Your task to perform on an android device: turn on javascript in the chrome app Image 0: 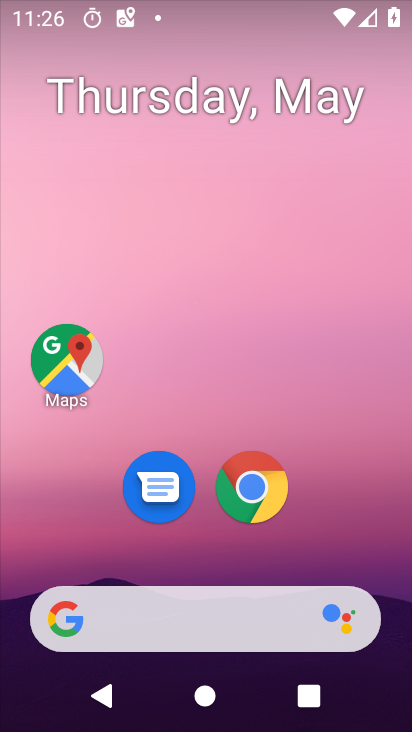
Step 0: click (258, 503)
Your task to perform on an android device: turn on javascript in the chrome app Image 1: 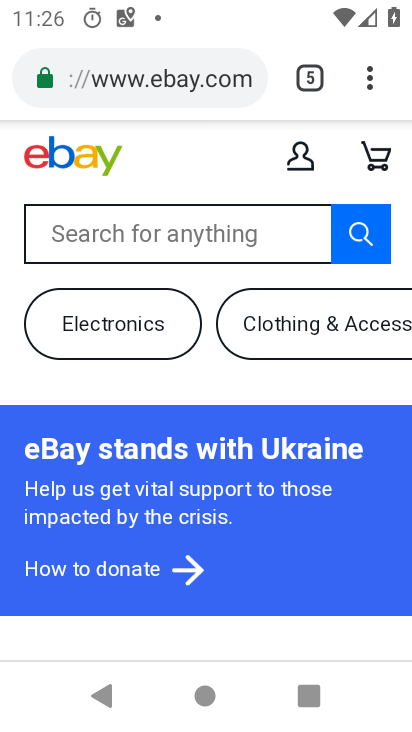
Step 1: click (379, 80)
Your task to perform on an android device: turn on javascript in the chrome app Image 2: 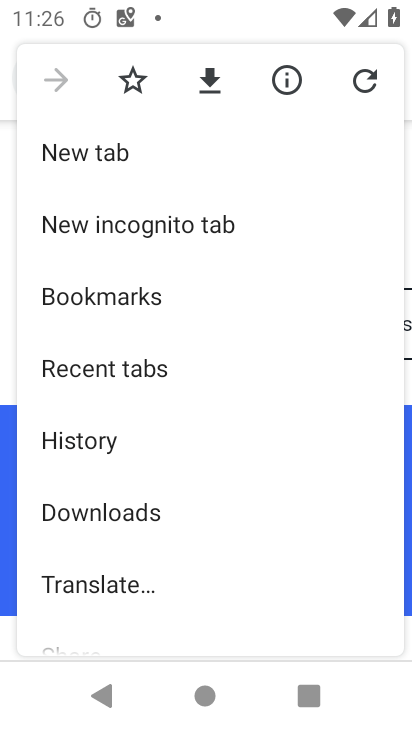
Step 2: drag from (240, 533) to (234, 225)
Your task to perform on an android device: turn on javascript in the chrome app Image 3: 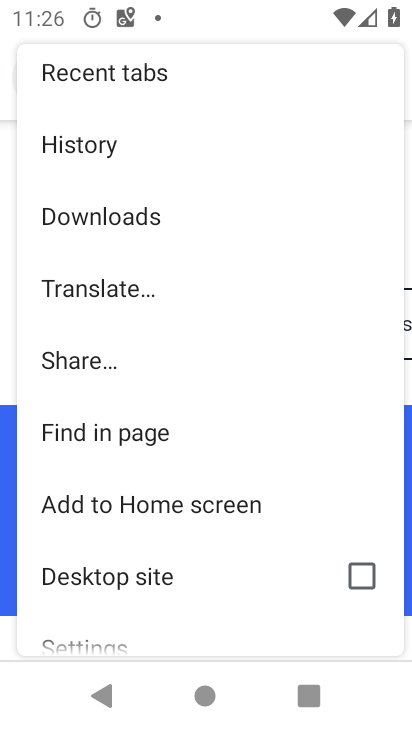
Step 3: drag from (156, 584) to (151, 196)
Your task to perform on an android device: turn on javascript in the chrome app Image 4: 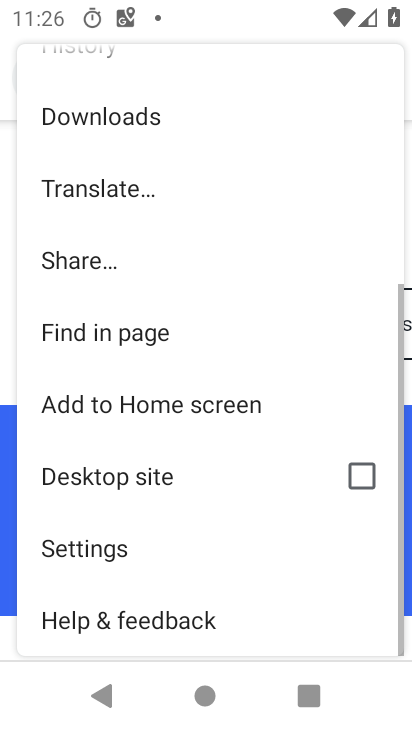
Step 4: click (108, 543)
Your task to perform on an android device: turn on javascript in the chrome app Image 5: 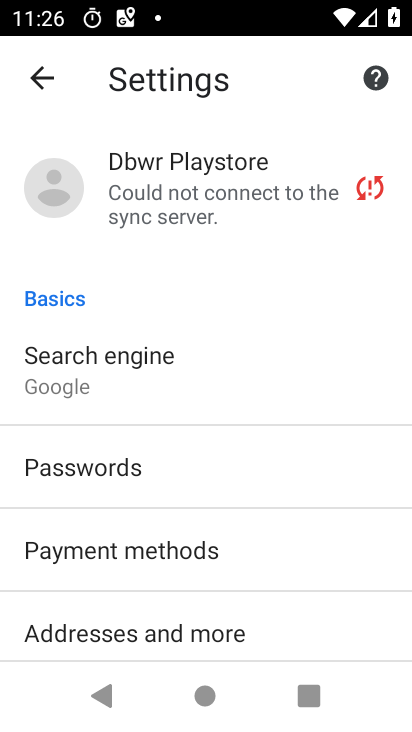
Step 5: drag from (236, 579) to (275, 225)
Your task to perform on an android device: turn on javascript in the chrome app Image 6: 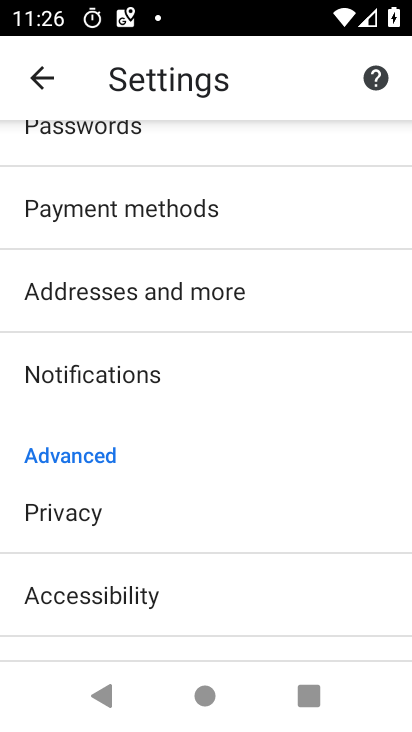
Step 6: drag from (157, 575) to (164, 286)
Your task to perform on an android device: turn on javascript in the chrome app Image 7: 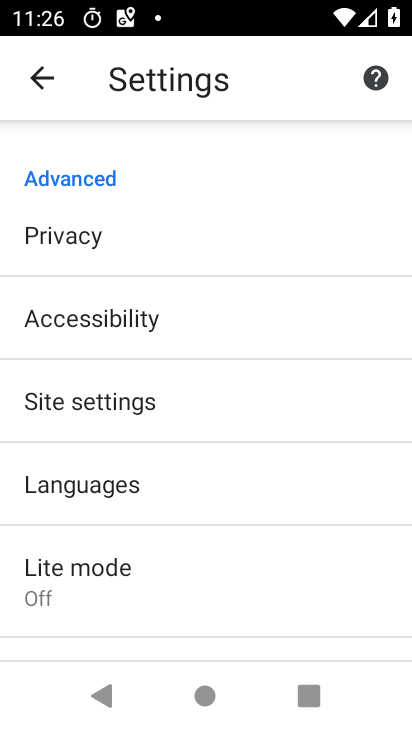
Step 7: click (138, 401)
Your task to perform on an android device: turn on javascript in the chrome app Image 8: 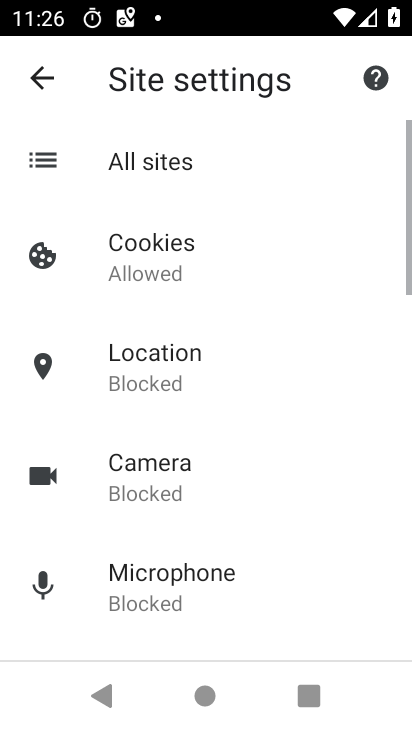
Step 8: drag from (247, 583) to (285, 268)
Your task to perform on an android device: turn on javascript in the chrome app Image 9: 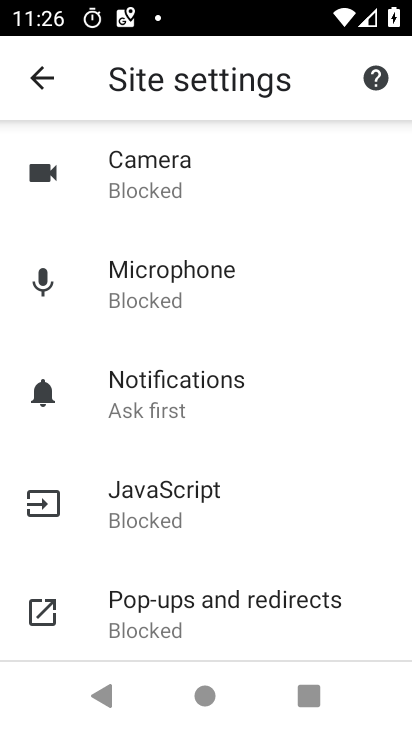
Step 9: click (205, 501)
Your task to perform on an android device: turn on javascript in the chrome app Image 10: 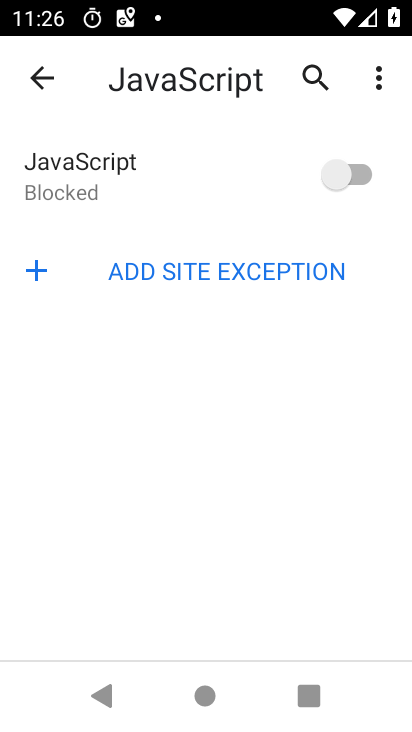
Step 10: click (352, 176)
Your task to perform on an android device: turn on javascript in the chrome app Image 11: 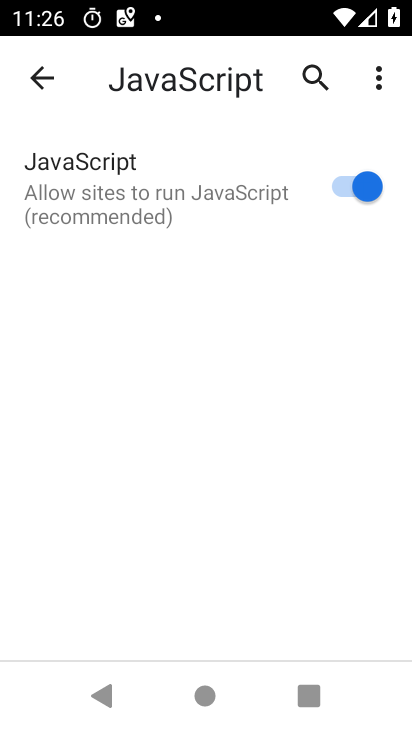
Step 11: task complete